Your task to perform on an android device: Go to Android settings Image 0: 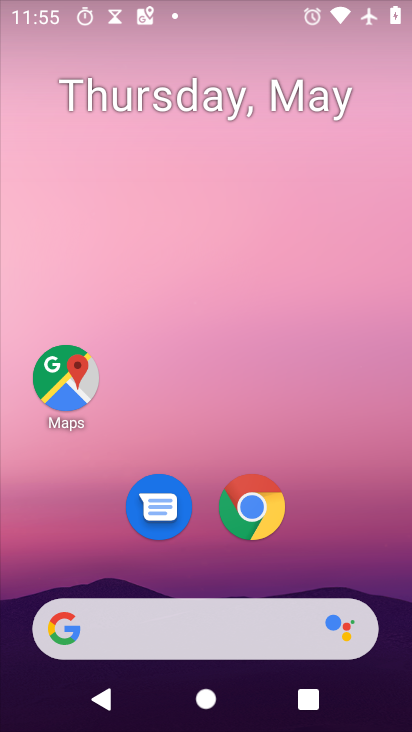
Step 0: drag from (350, 540) to (252, 13)
Your task to perform on an android device: Go to Android settings Image 1: 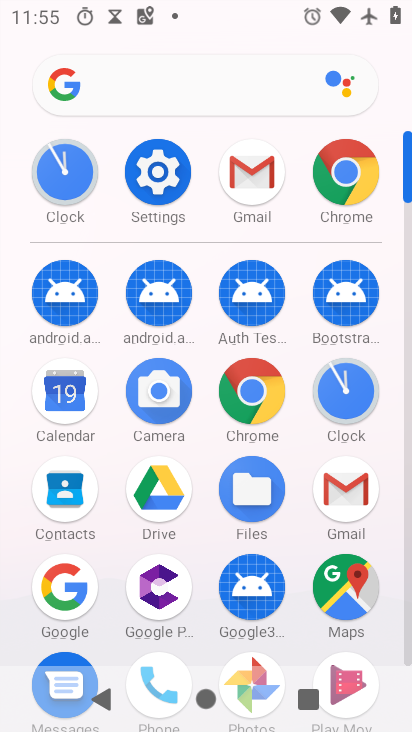
Step 1: drag from (18, 592) to (17, 243)
Your task to perform on an android device: Go to Android settings Image 2: 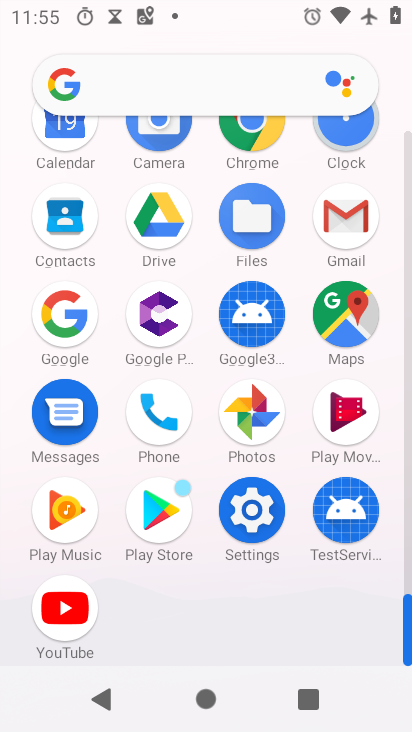
Step 2: click (250, 508)
Your task to perform on an android device: Go to Android settings Image 3: 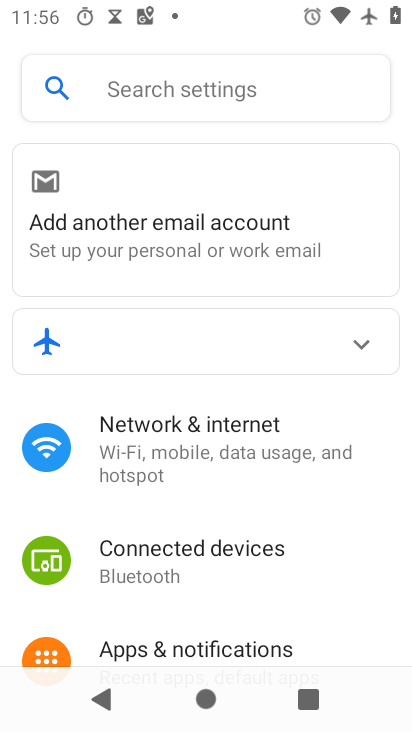
Step 3: task complete